Your task to perform on an android device: stop showing notifications on the lock screen Image 0: 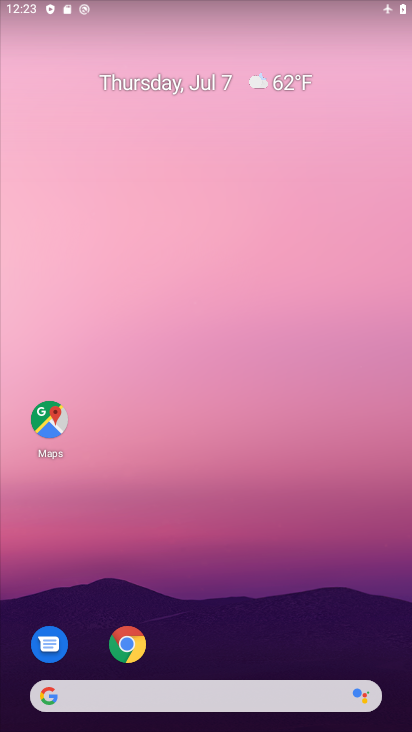
Step 0: drag from (264, 442) to (301, 43)
Your task to perform on an android device: stop showing notifications on the lock screen Image 1: 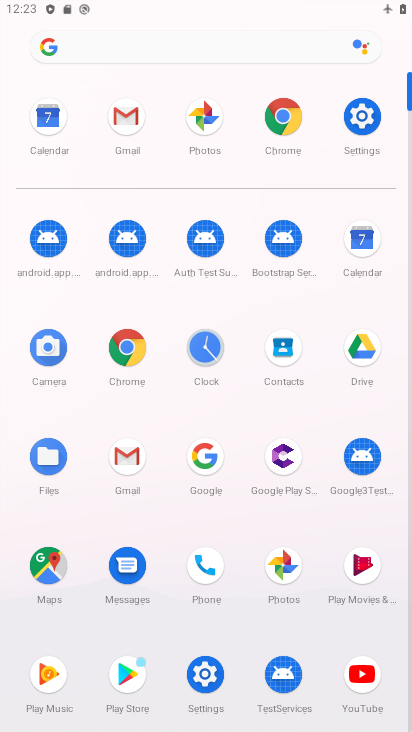
Step 1: click (209, 666)
Your task to perform on an android device: stop showing notifications on the lock screen Image 2: 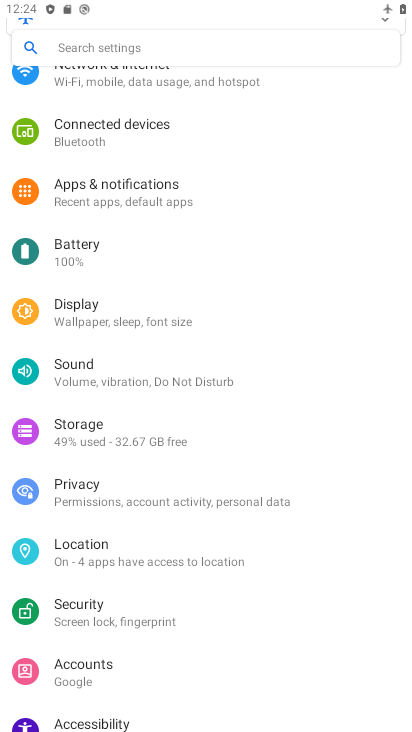
Step 2: drag from (210, 256) to (193, 503)
Your task to perform on an android device: stop showing notifications on the lock screen Image 3: 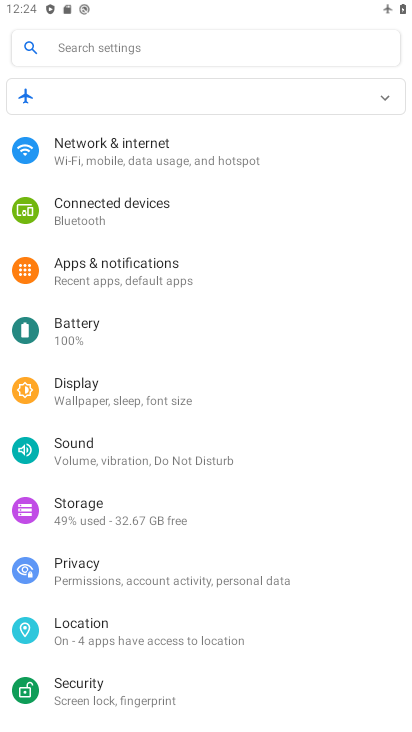
Step 3: click (197, 275)
Your task to perform on an android device: stop showing notifications on the lock screen Image 4: 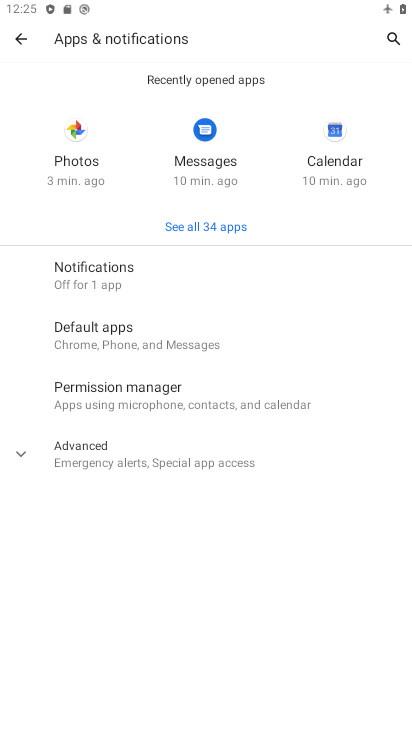
Step 4: click (276, 279)
Your task to perform on an android device: stop showing notifications on the lock screen Image 5: 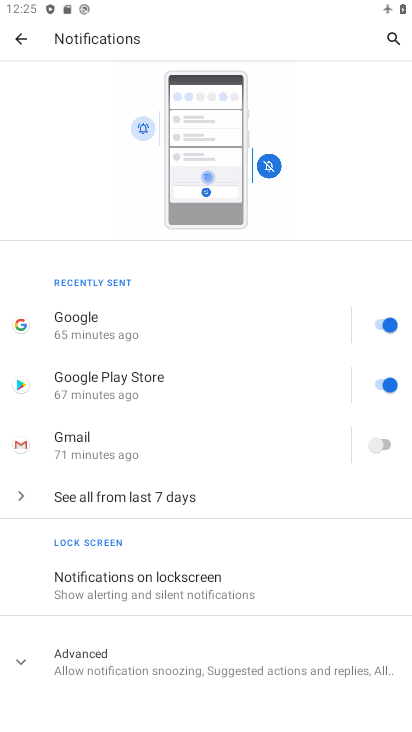
Step 5: drag from (236, 604) to (202, 424)
Your task to perform on an android device: stop showing notifications on the lock screen Image 6: 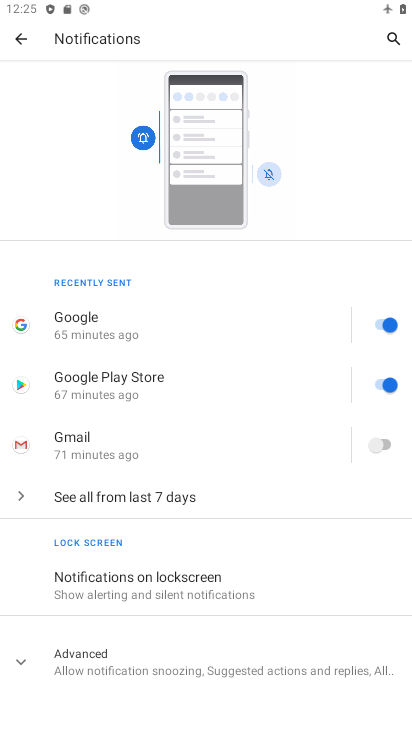
Step 6: click (203, 600)
Your task to perform on an android device: stop showing notifications on the lock screen Image 7: 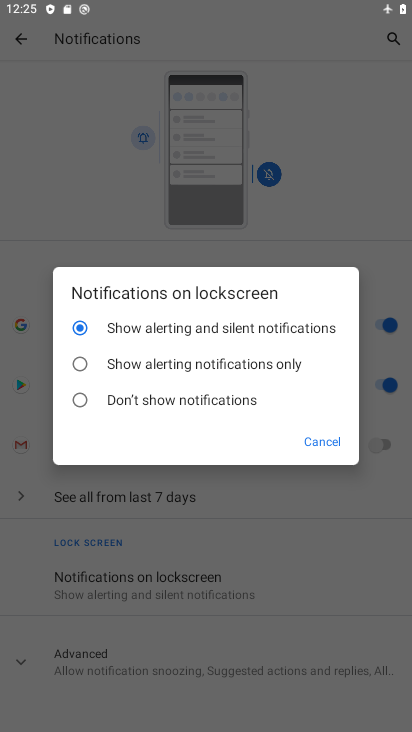
Step 7: click (219, 396)
Your task to perform on an android device: stop showing notifications on the lock screen Image 8: 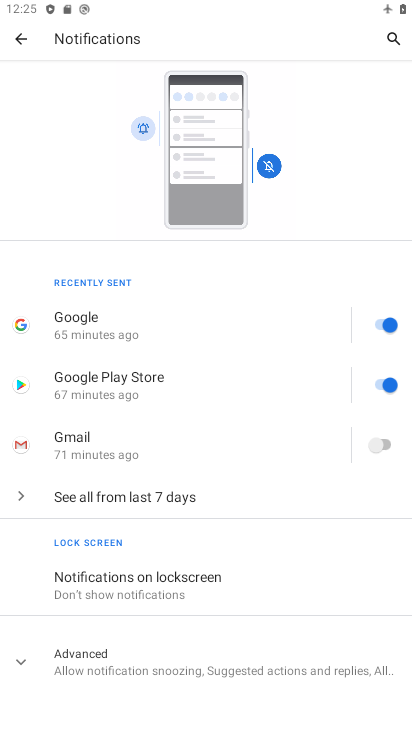
Step 8: task complete